Your task to perform on an android device: open a bookmark in the chrome app Image 0: 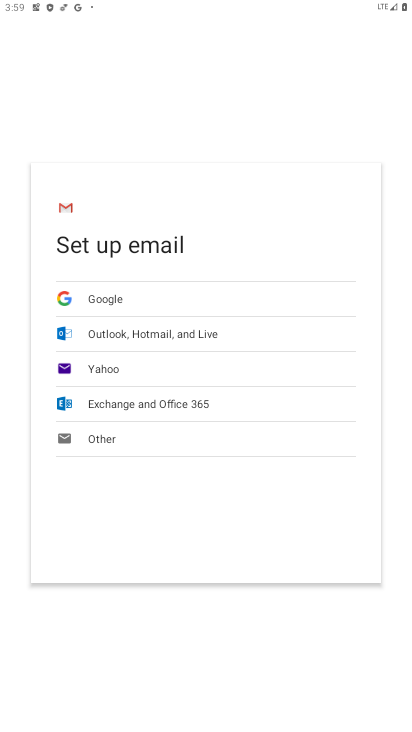
Step 0: press home button
Your task to perform on an android device: open a bookmark in the chrome app Image 1: 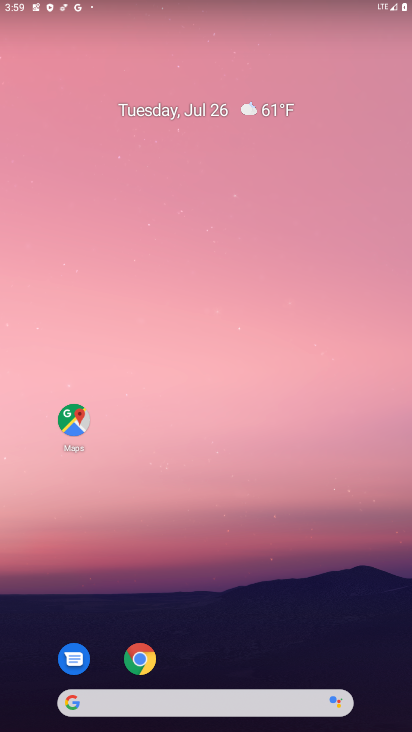
Step 1: drag from (233, 617) to (249, 82)
Your task to perform on an android device: open a bookmark in the chrome app Image 2: 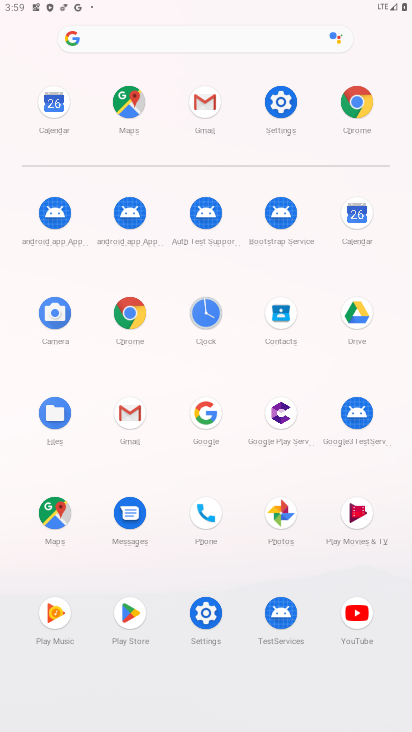
Step 2: click (361, 103)
Your task to perform on an android device: open a bookmark in the chrome app Image 3: 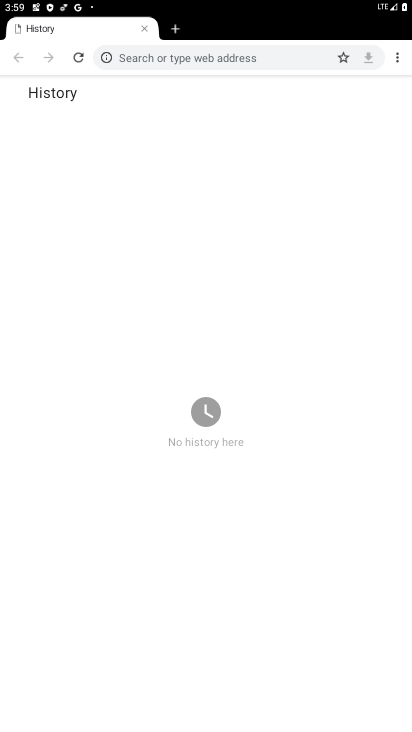
Step 3: drag from (397, 51) to (285, 145)
Your task to perform on an android device: open a bookmark in the chrome app Image 4: 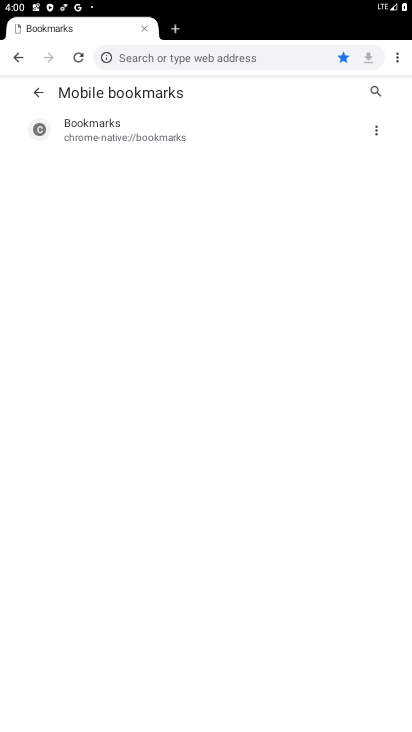
Step 4: click (149, 129)
Your task to perform on an android device: open a bookmark in the chrome app Image 5: 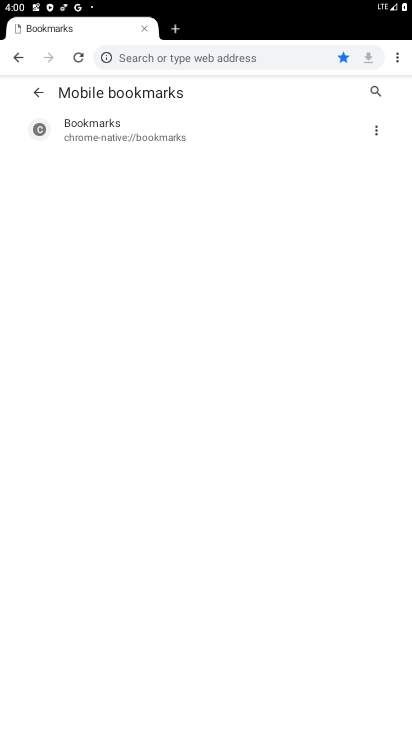
Step 5: click (158, 130)
Your task to perform on an android device: open a bookmark in the chrome app Image 6: 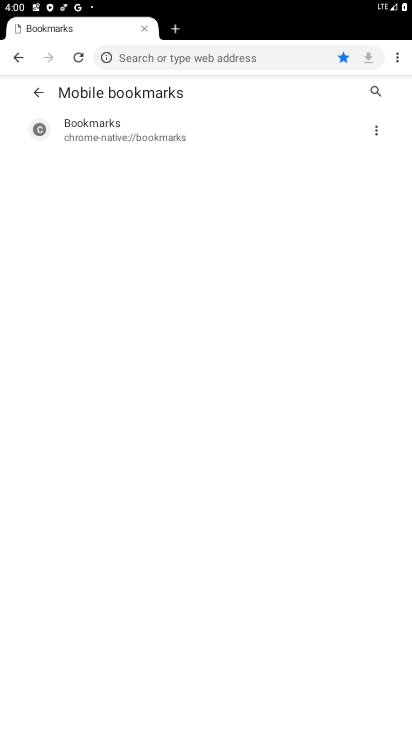
Step 6: click (70, 133)
Your task to perform on an android device: open a bookmark in the chrome app Image 7: 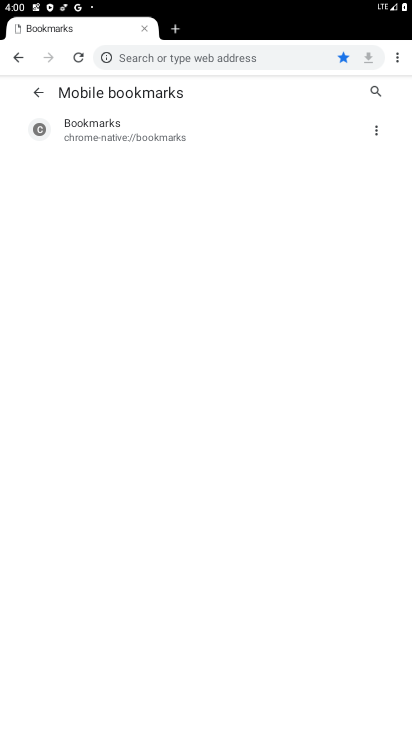
Step 7: click (38, 124)
Your task to perform on an android device: open a bookmark in the chrome app Image 8: 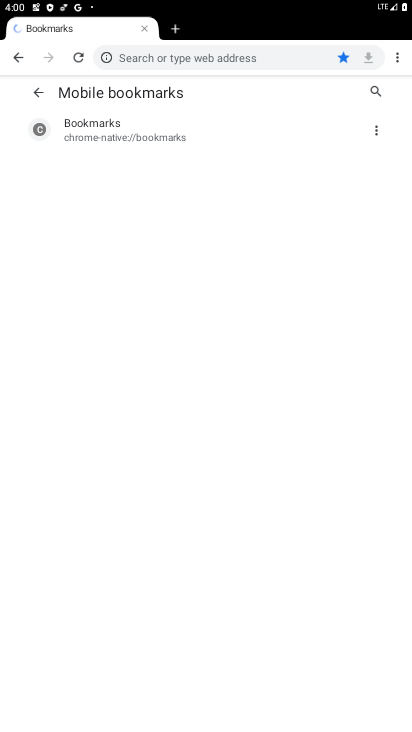
Step 8: click (159, 136)
Your task to perform on an android device: open a bookmark in the chrome app Image 9: 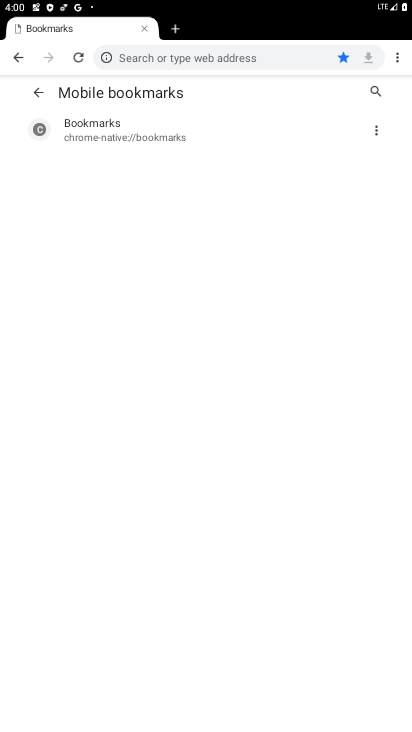
Step 9: task complete